Your task to perform on an android device: Open the map Image 0: 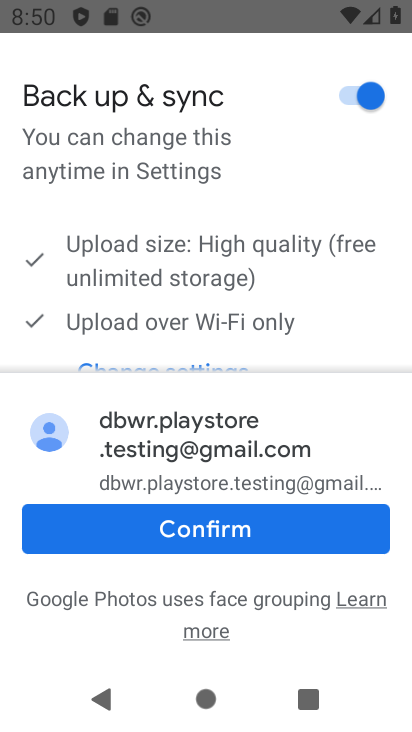
Step 0: press home button
Your task to perform on an android device: Open the map Image 1: 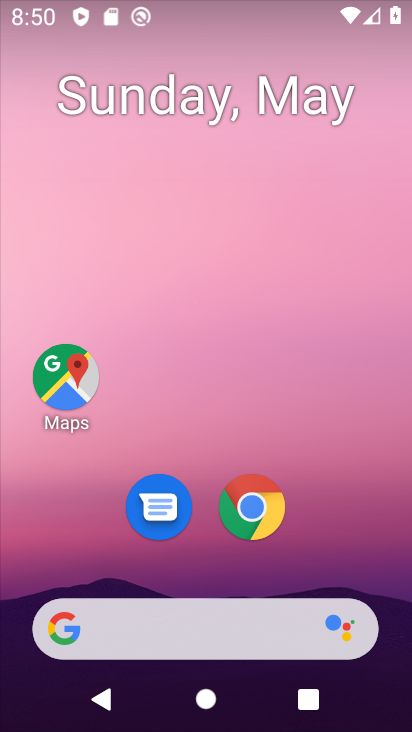
Step 1: click (69, 365)
Your task to perform on an android device: Open the map Image 2: 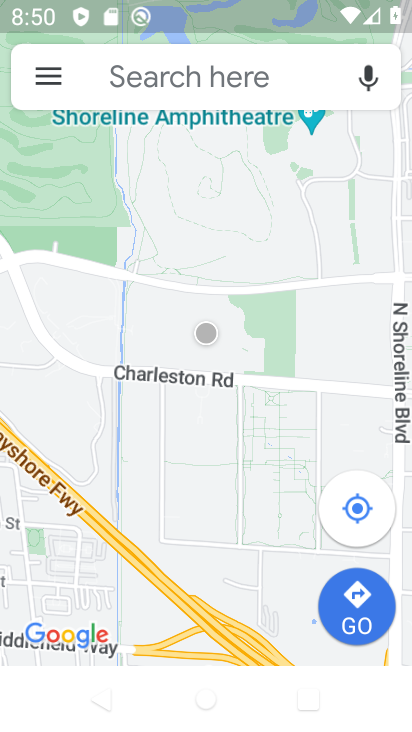
Step 2: task complete